Your task to perform on an android device: Empty the shopping cart on ebay.com. Image 0: 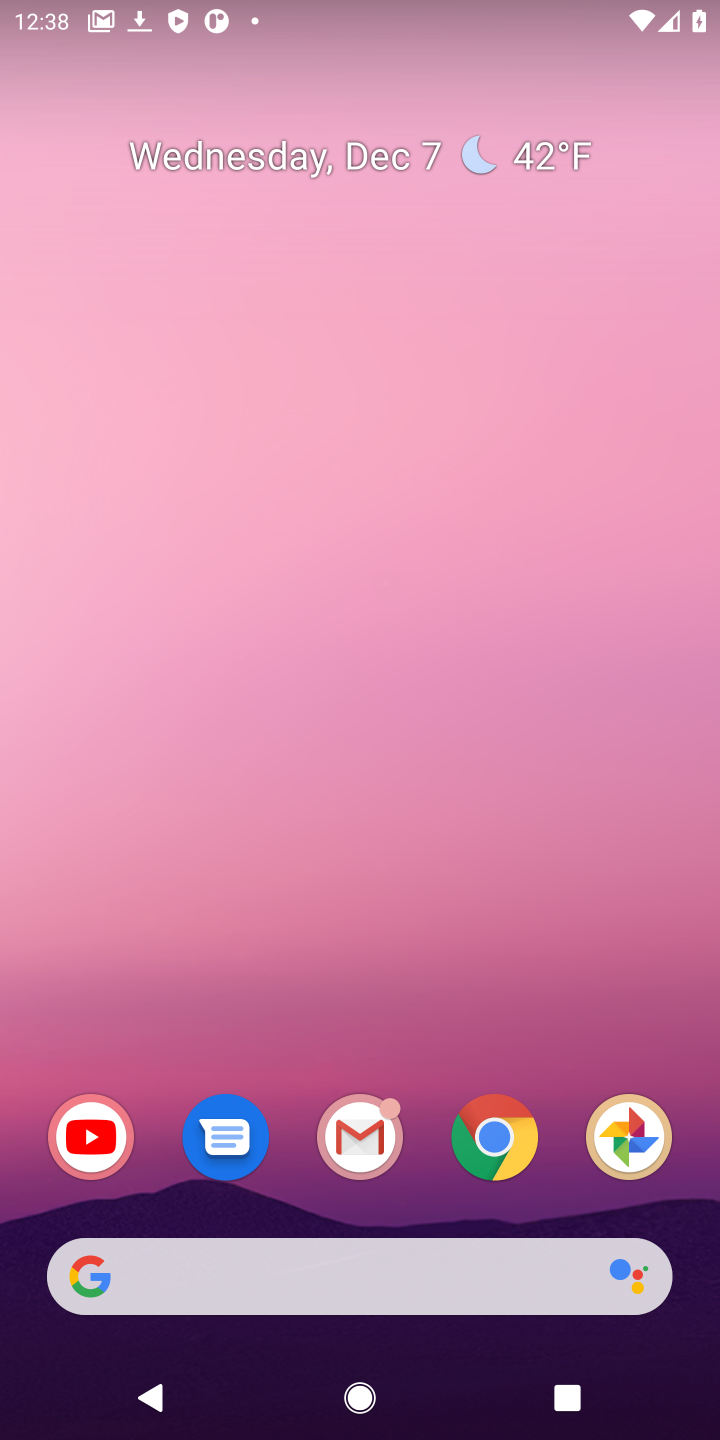
Step 0: drag from (316, 1116) to (300, 251)
Your task to perform on an android device: Empty the shopping cart on ebay.com. Image 1: 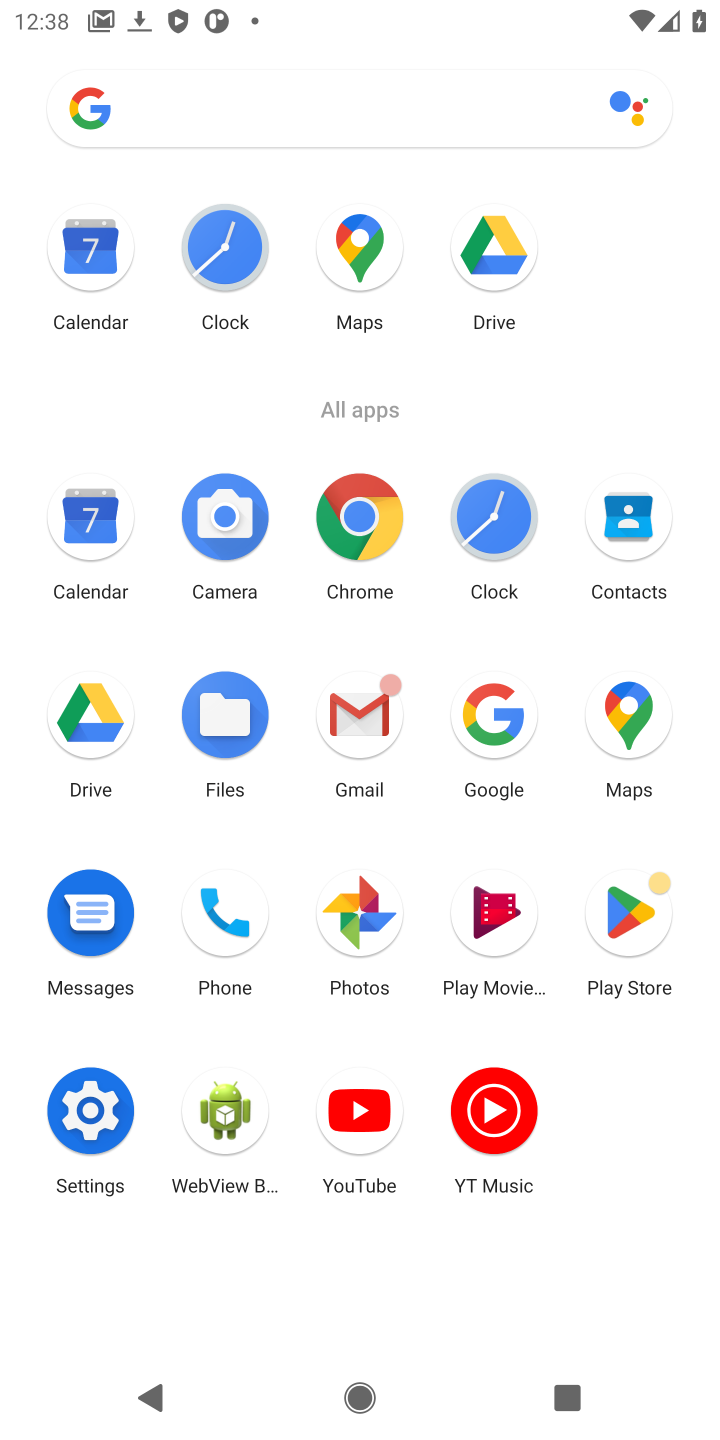
Step 1: click (472, 706)
Your task to perform on an android device: Empty the shopping cart on ebay.com. Image 2: 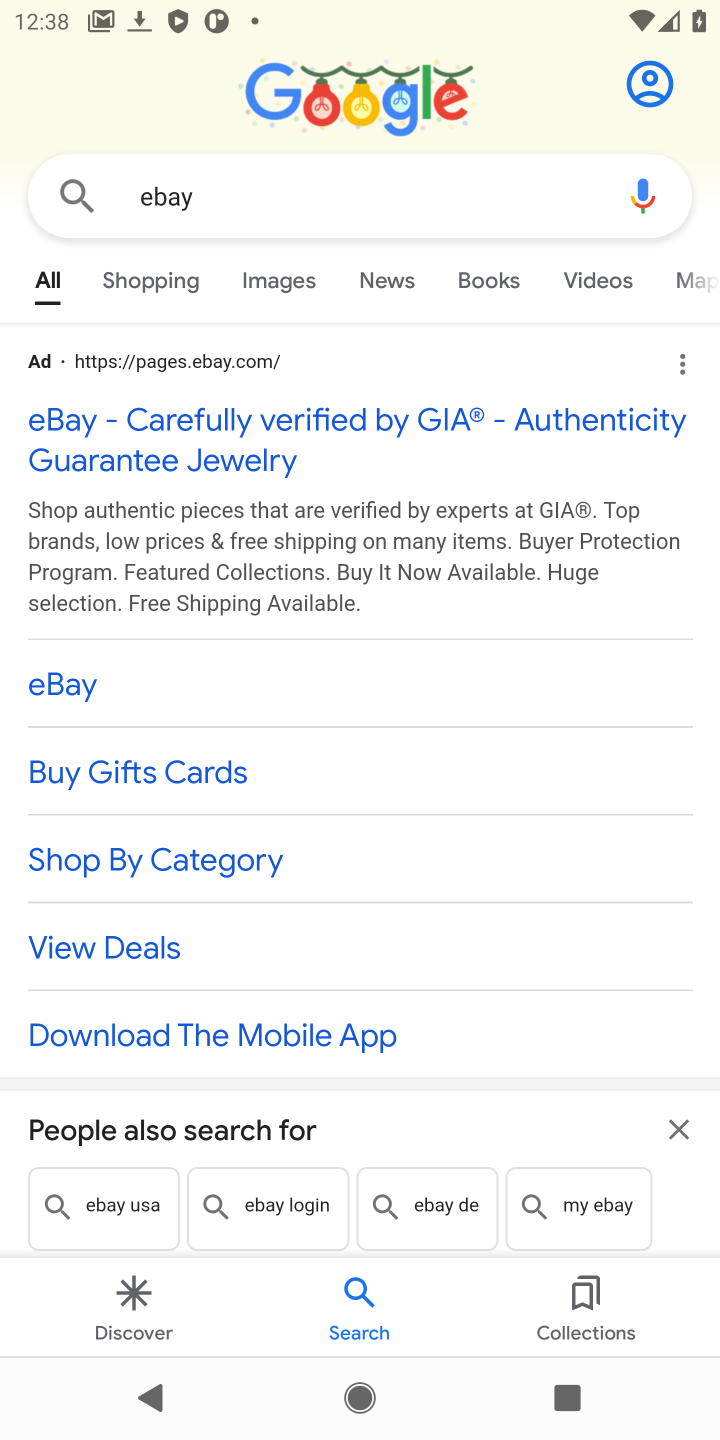
Step 2: click (180, 208)
Your task to perform on an android device: Empty the shopping cart on ebay.com. Image 3: 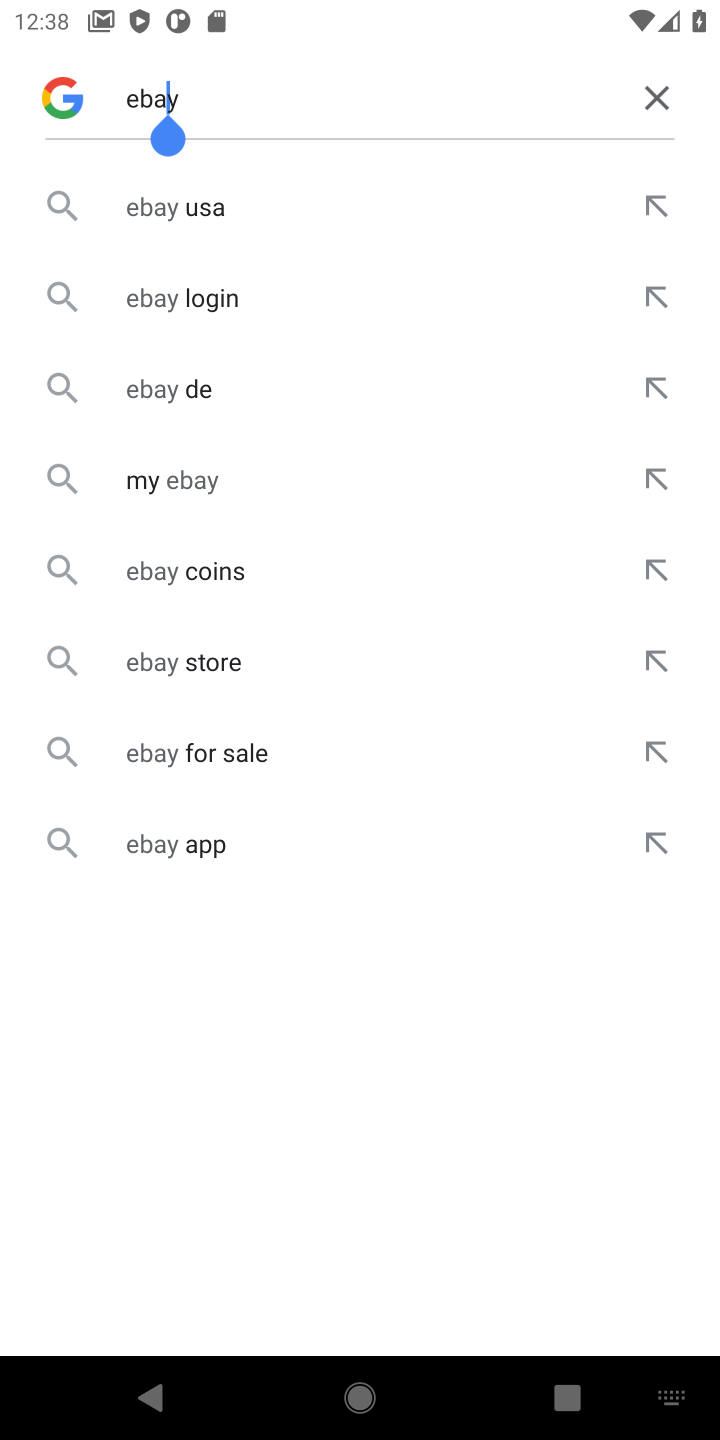
Step 3: click (655, 98)
Your task to perform on an android device: Empty the shopping cart on ebay.com. Image 4: 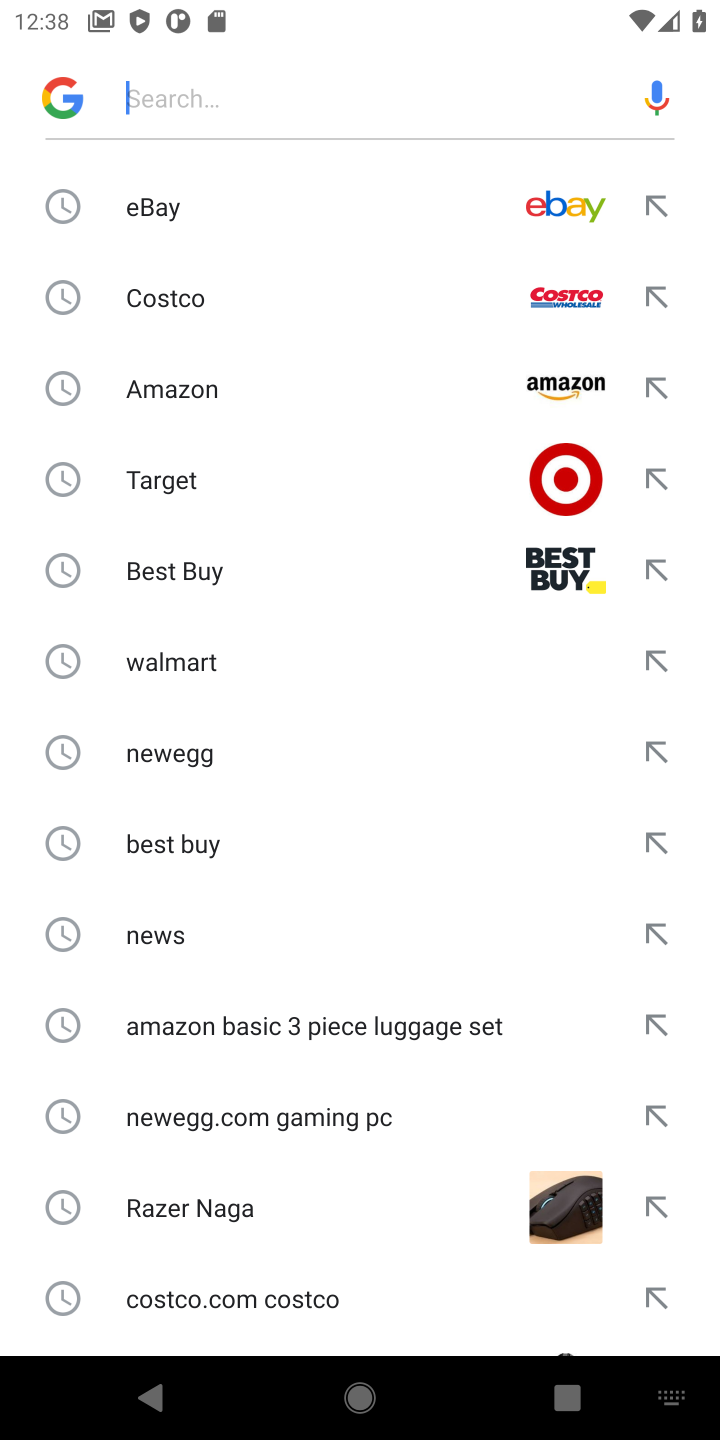
Step 4: click (160, 212)
Your task to perform on an android device: Empty the shopping cart on ebay.com. Image 5: 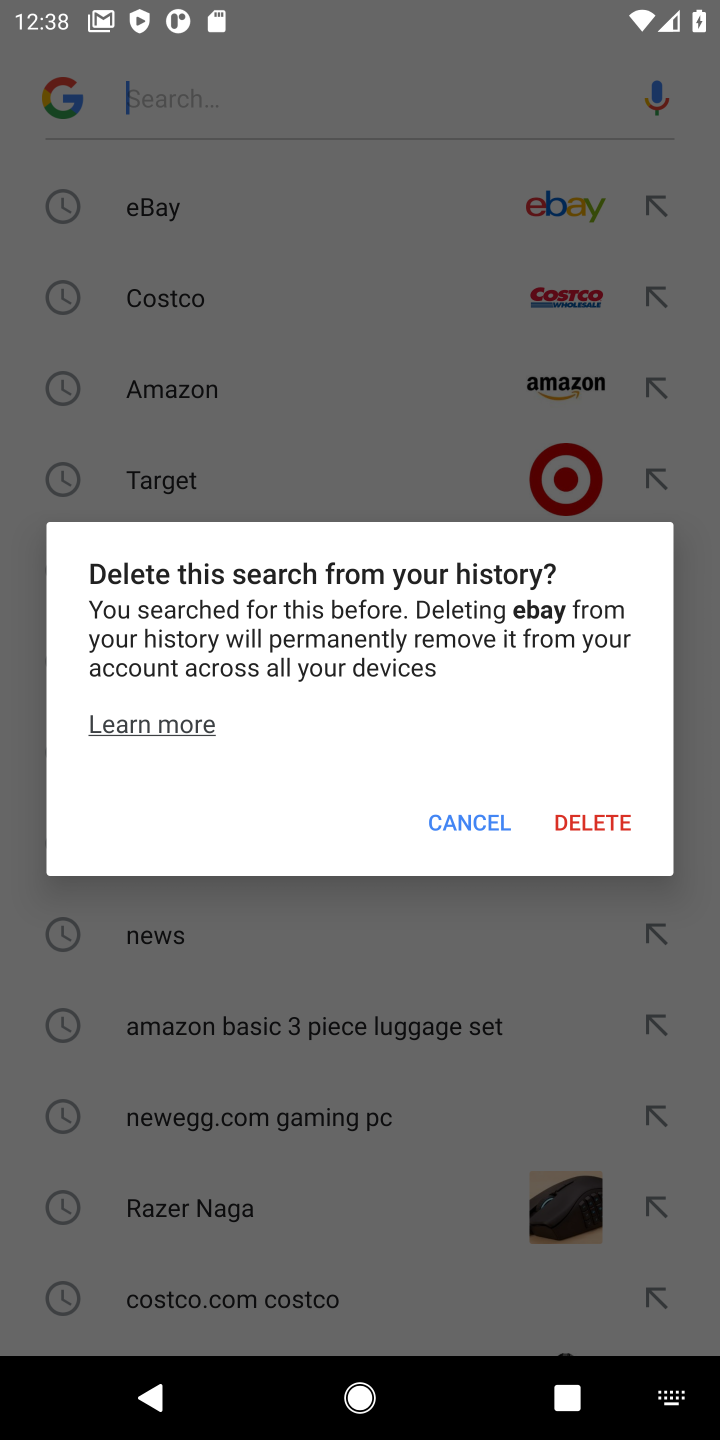
Step 5: click (470, 828)
Your task to perform on an android device: Empty the shopping cart on ebay.com. Image 6: 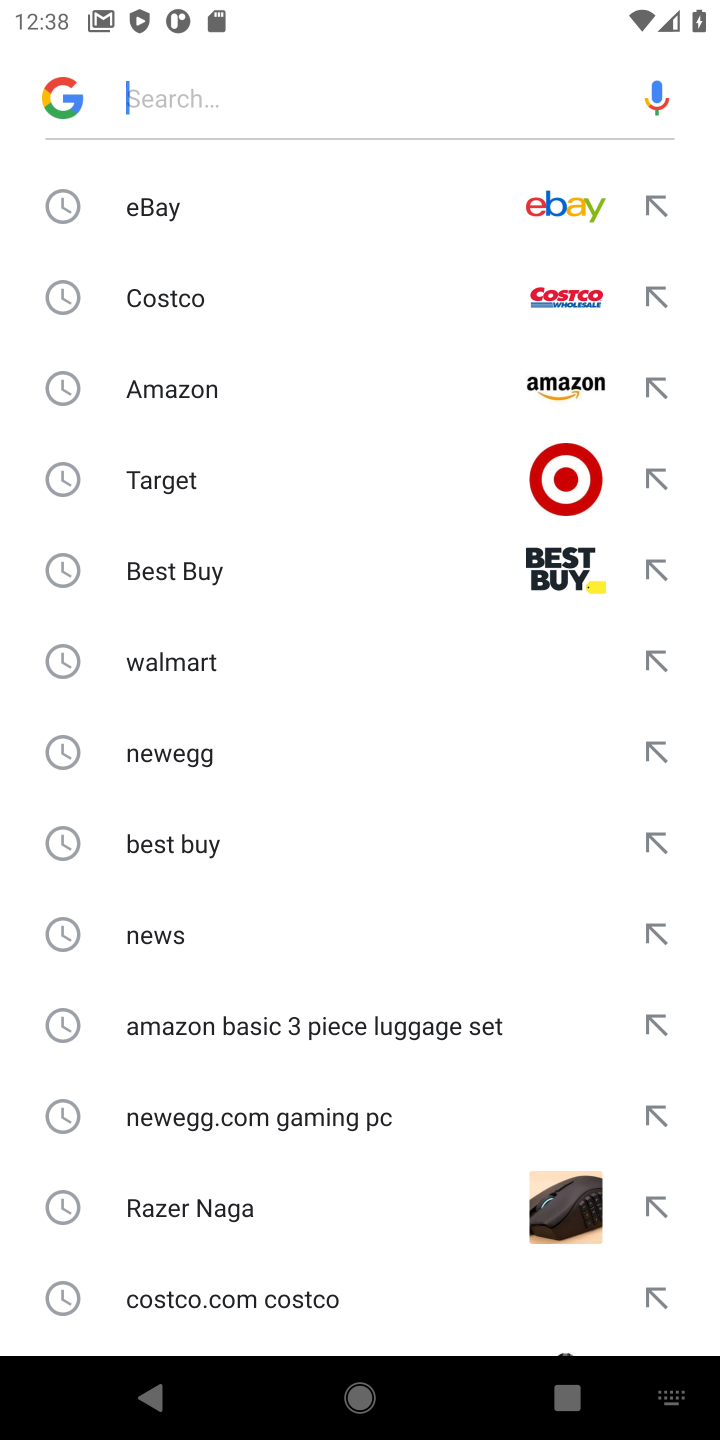
Step 6: click (553, 215)
Your task to perform on an android device: Empty the shopping cart on ebay.com. Image 7: 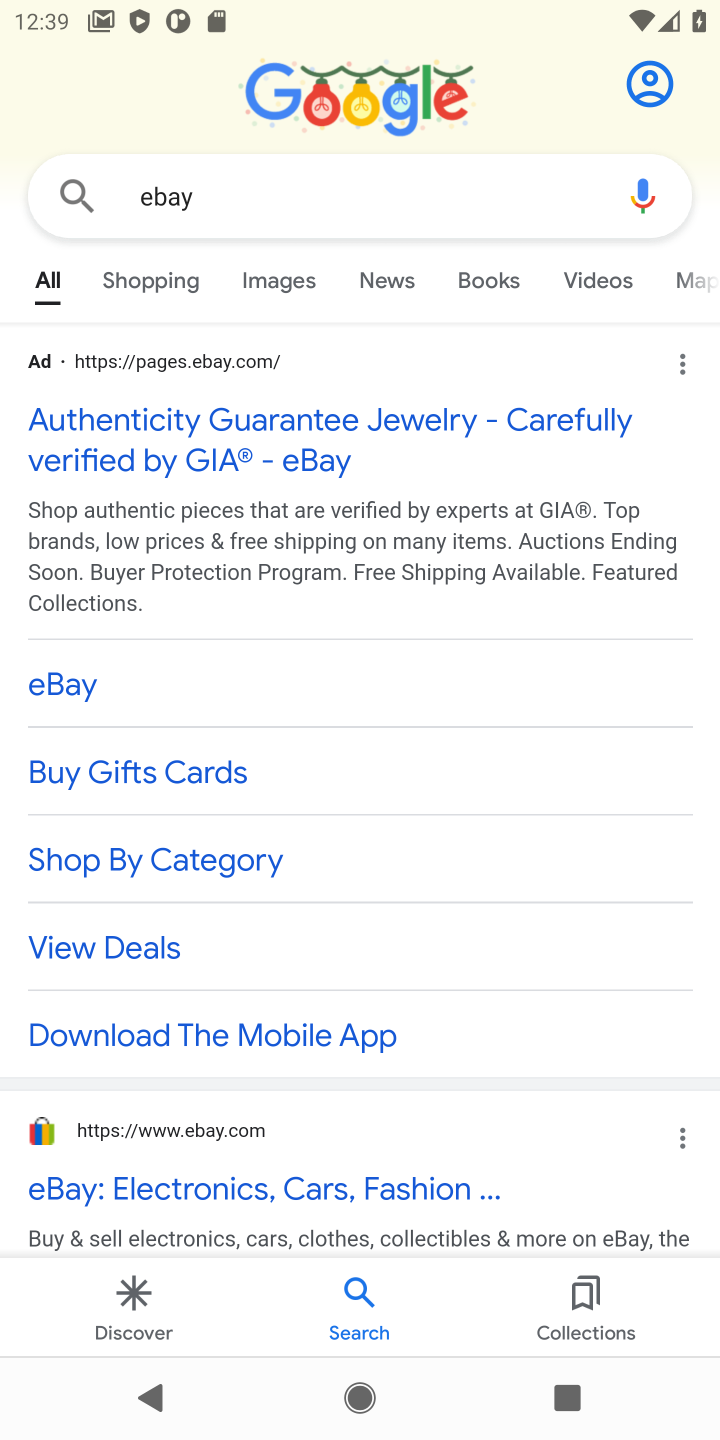
Step 7: click (278, 454)
Your task to perform on an android device: Empty the shopping cart on ebay.com. Image 8: 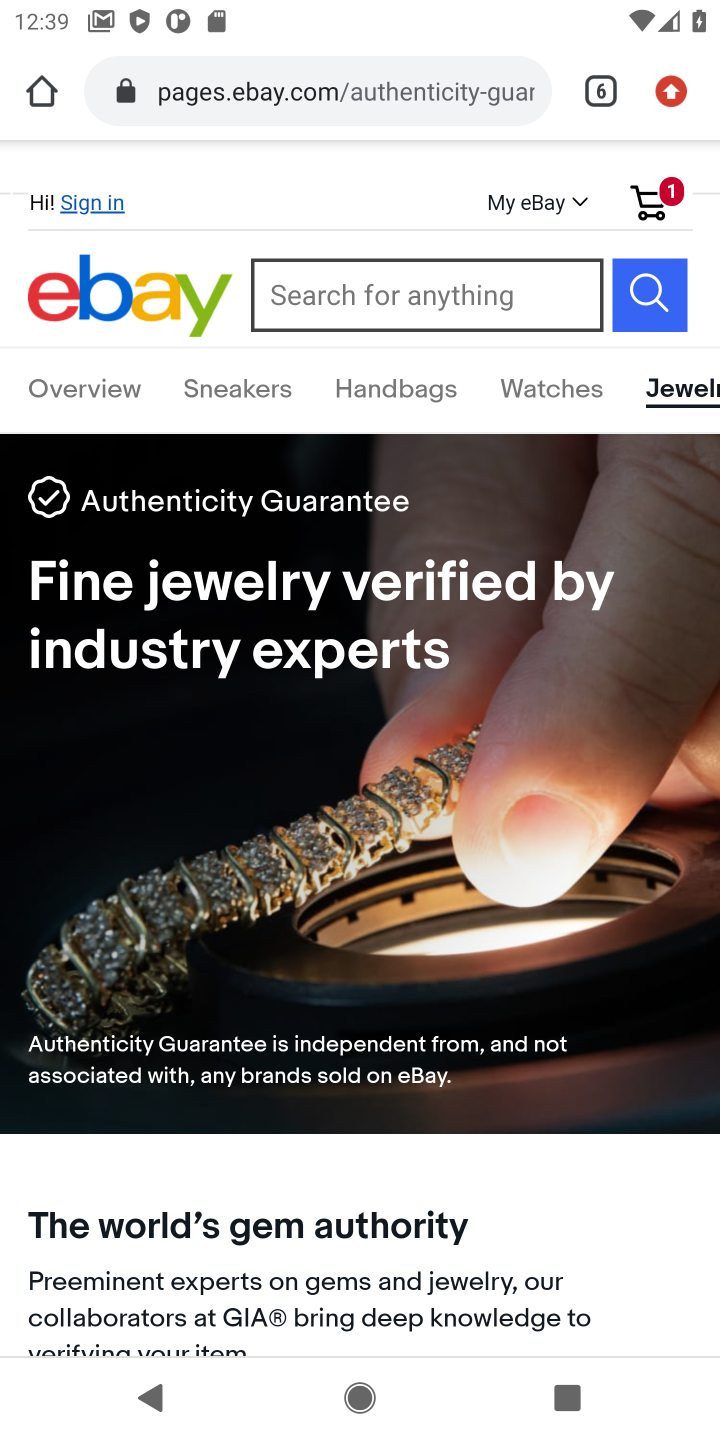
Step 8: click (337, 306)
Your task to perform on an android device: Empty the shopping cart on ebay.com. Image 9: 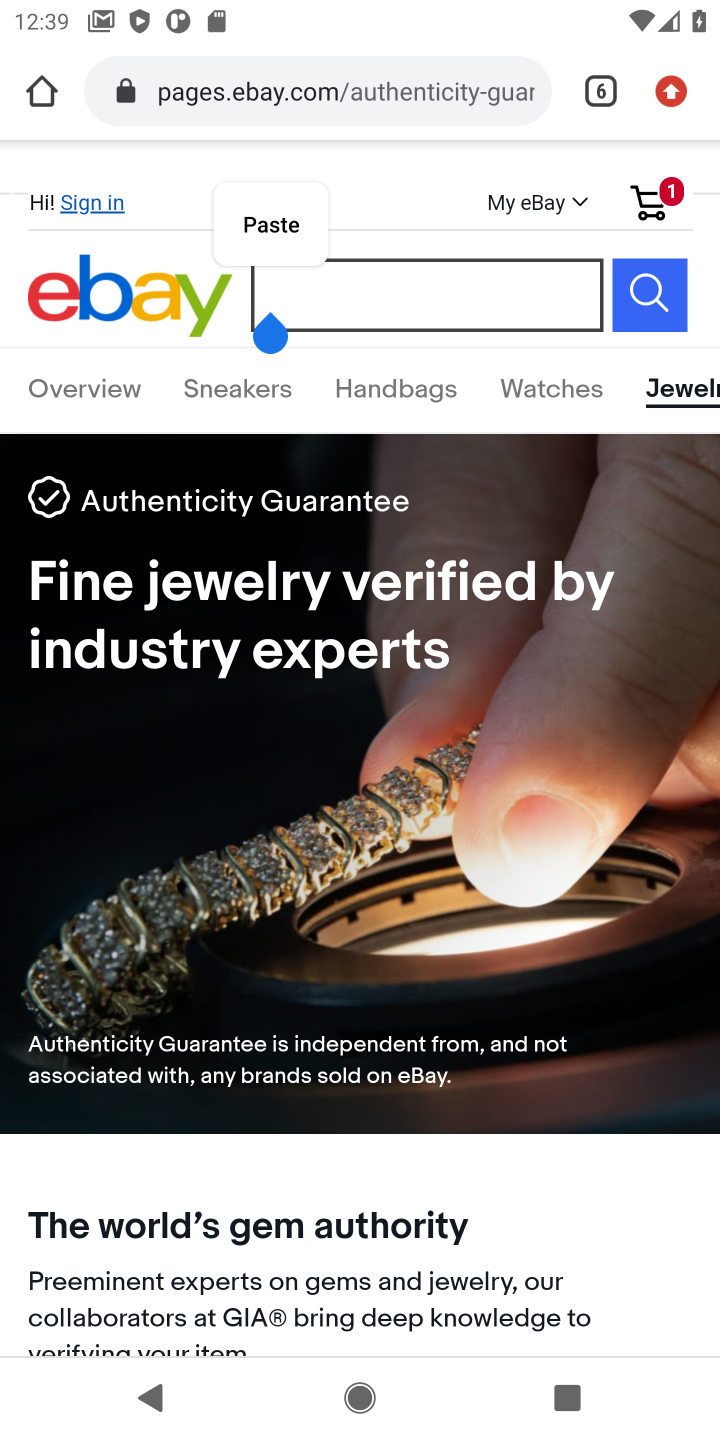
Step 9: click (676, 200)
Your task to perform on an android device: Empty the shopping cart on ebay.com. Image 10: 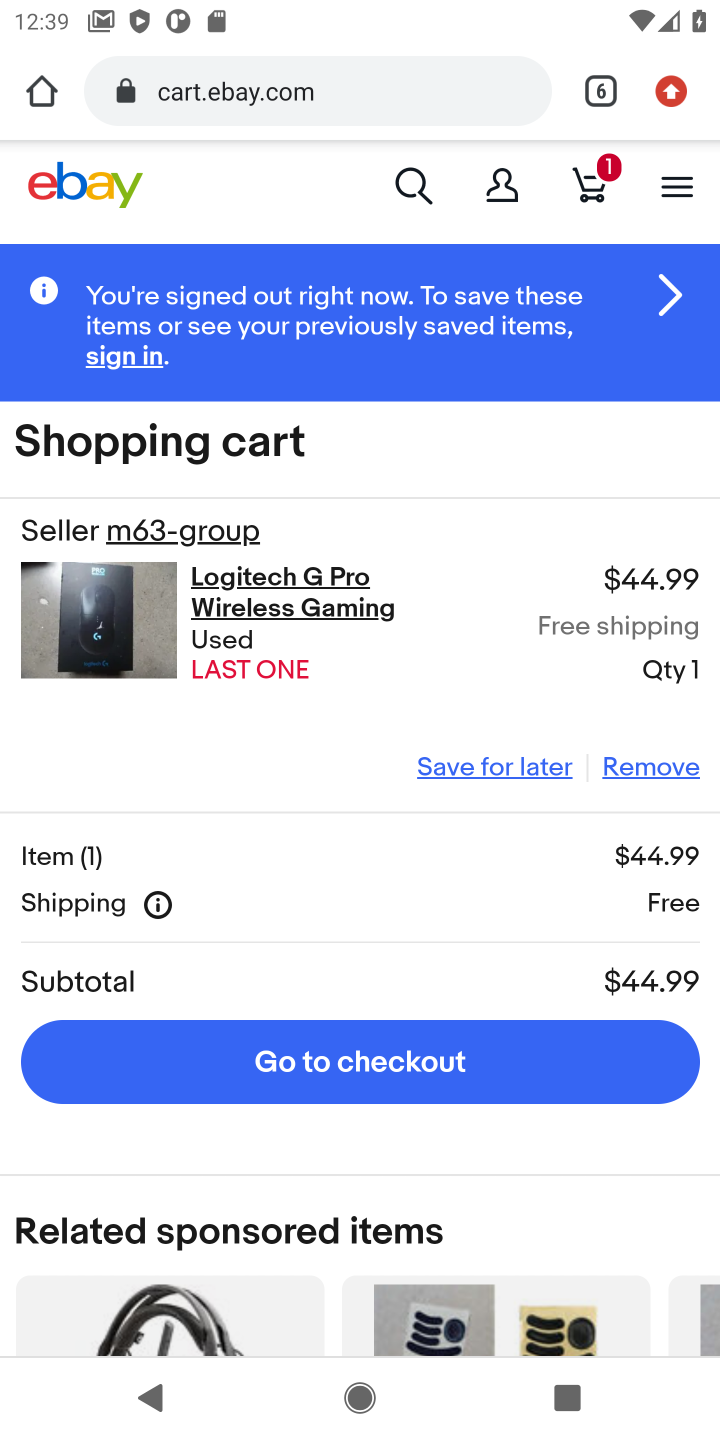
Step 10: click (620, 764)
Your task to perform on an android device: Empty the shopping cart on ebay.com. Image 11: 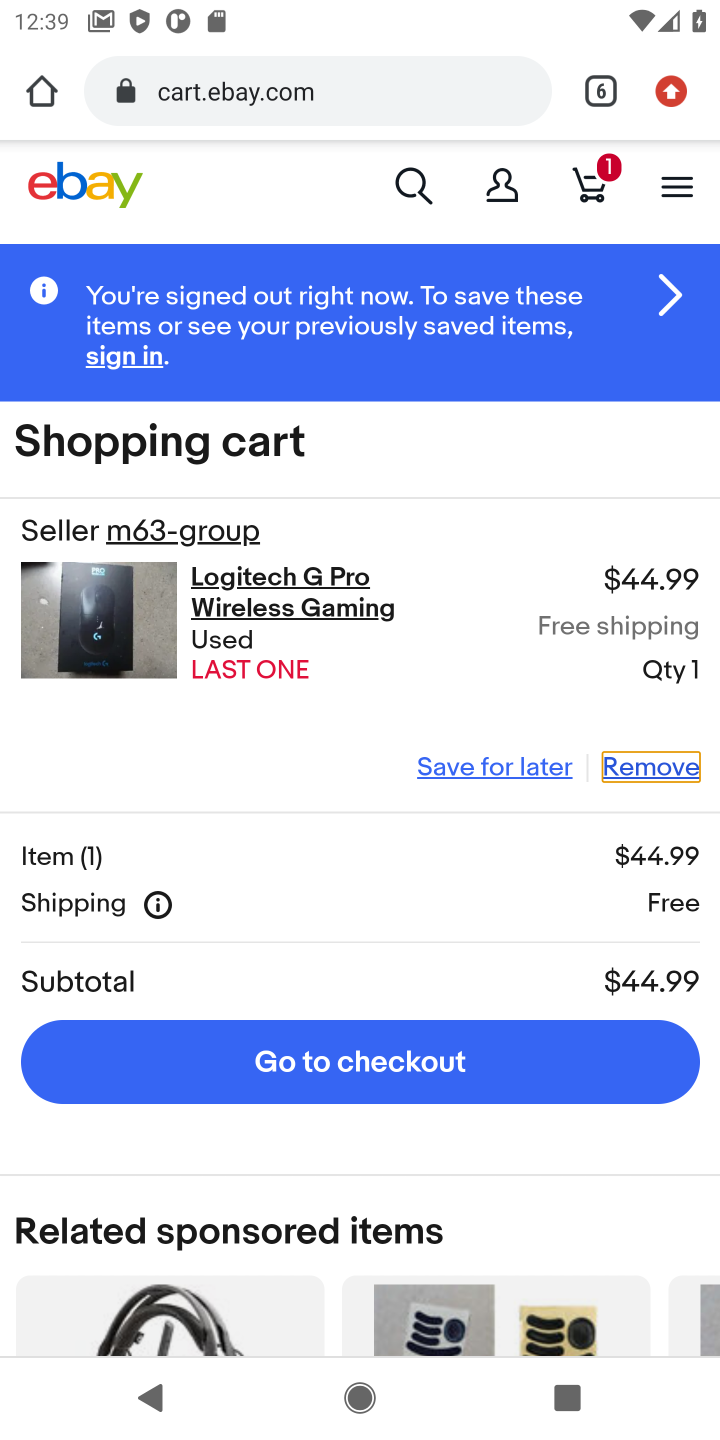
Step 11: click (641, 772)
Your task to perform on an android device: Empty the shopping cart on ebay.com. Image 12: 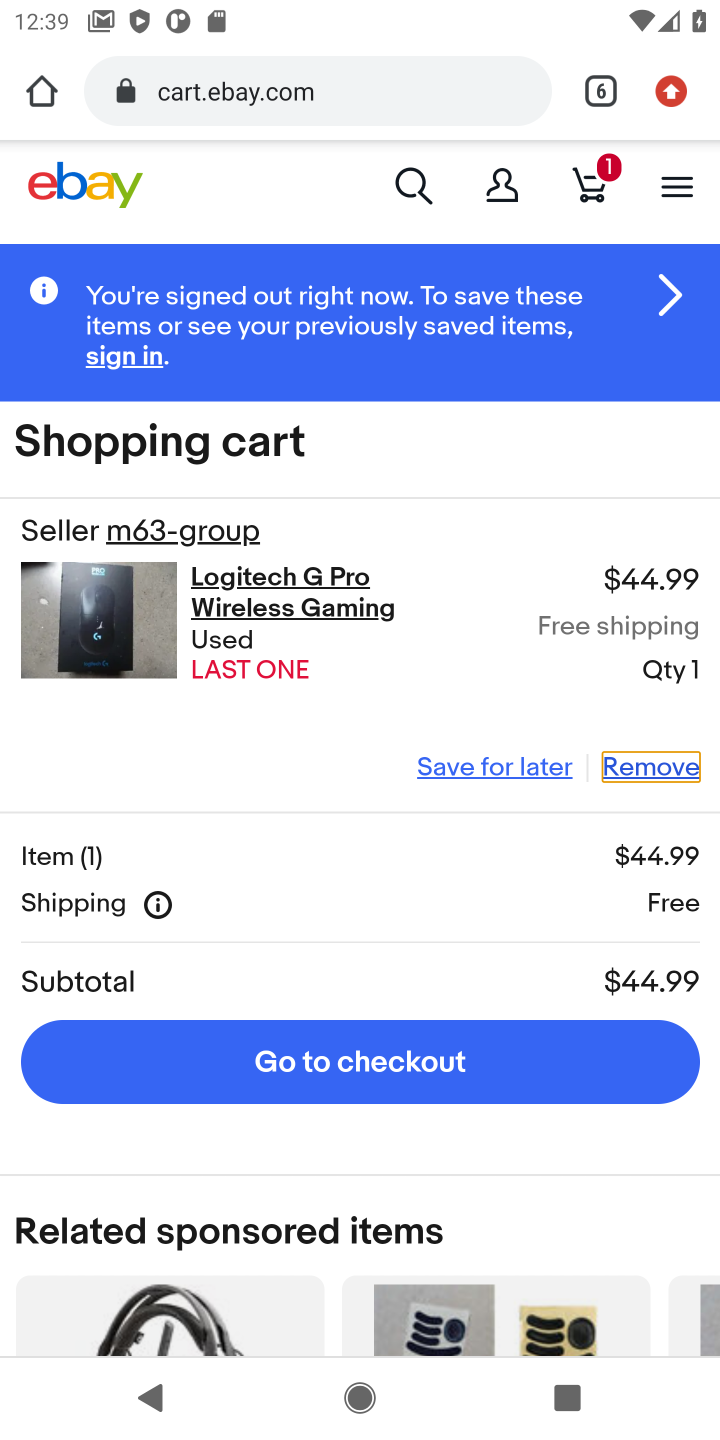
Step 12: click (635, 763)
Your task to perform on an android device: Empty the shopping cart on ebay.com. Image 13: 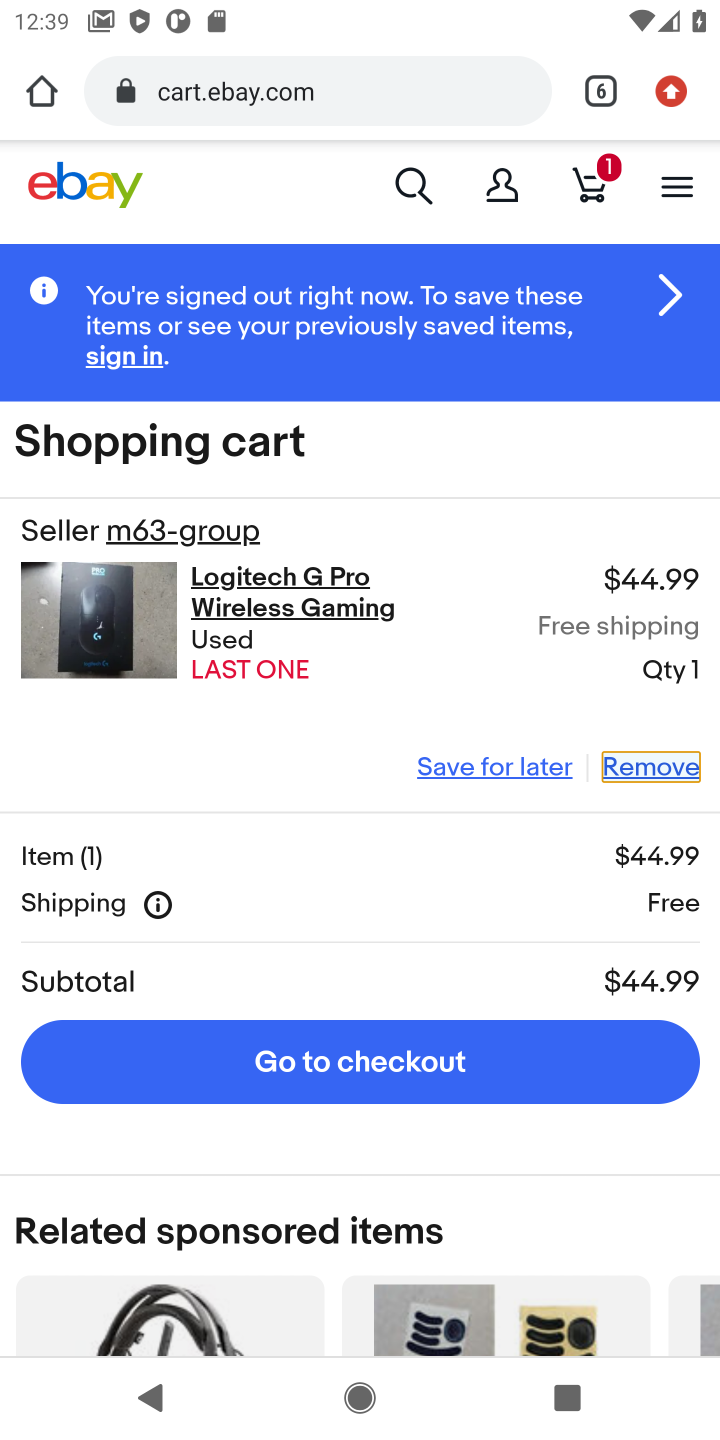
Step 13: click (635, 769)
Your task to perform on an android device: Empty the shopping cart on ebay.com. Image 14: 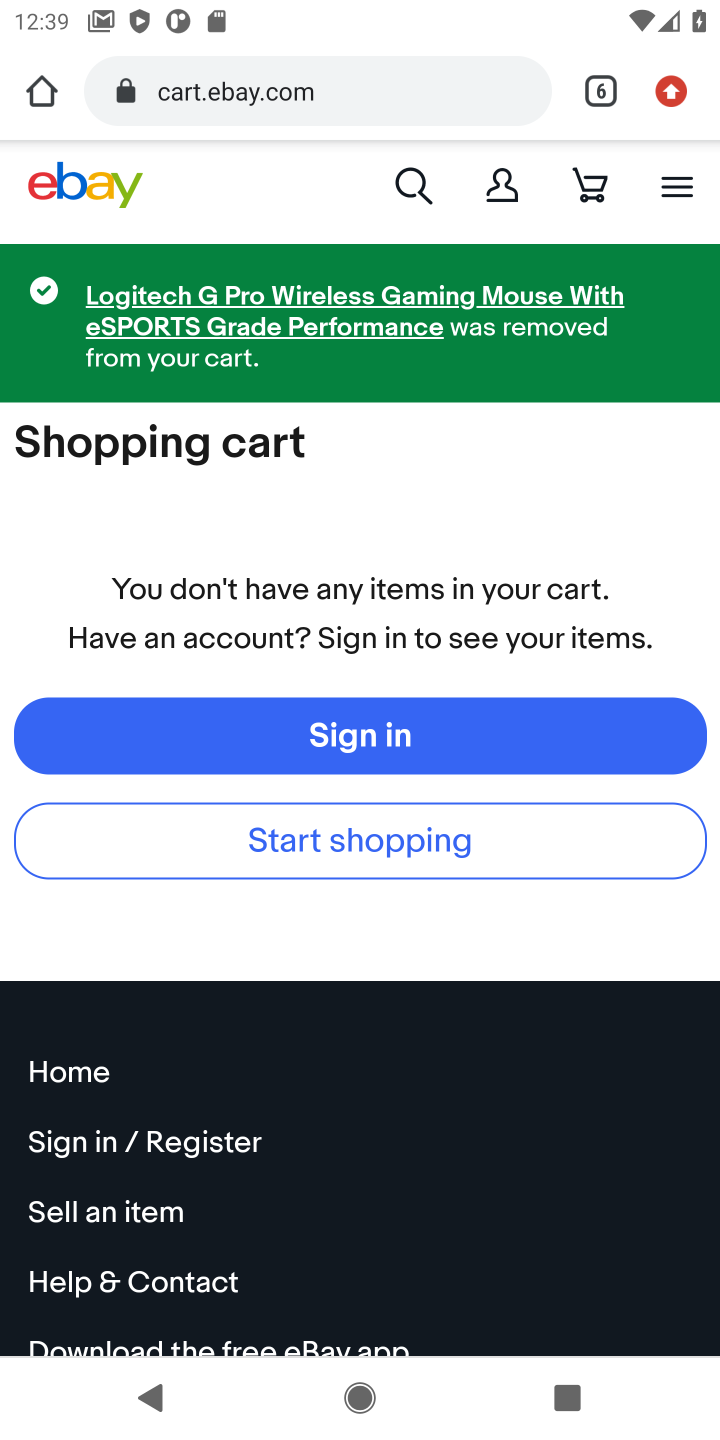
Step 14: task complete